Your task to perform on an android device: Search for logitech g pro on walmart, select the first entry, and add it to the cart. Image 0: 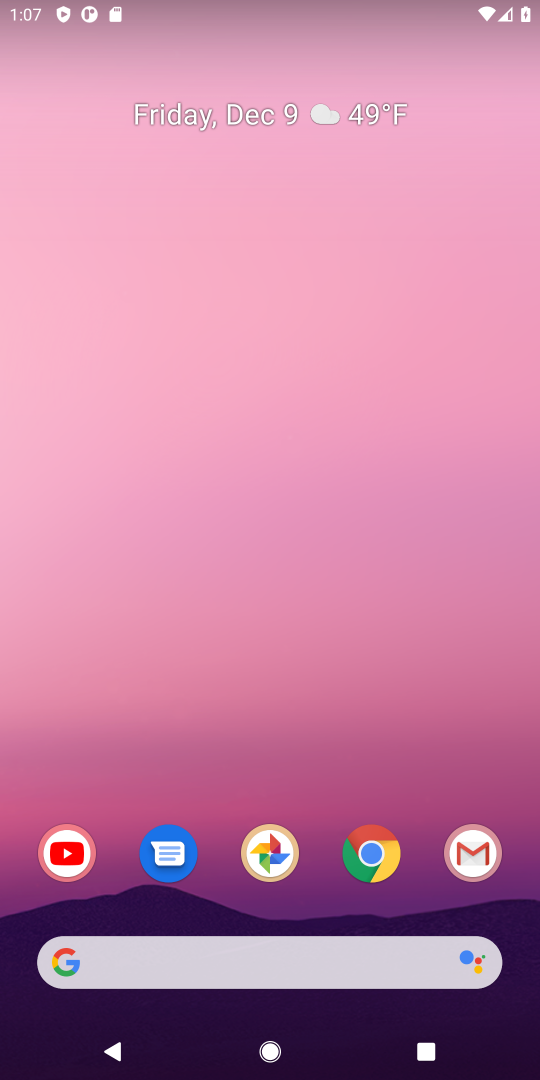
Step 0: drag from (175, 924) to (278, 257)
Your task to perform on an android device: Search for logitech g pro on walmart, select the first entry, and add it to the cart. Image 1: 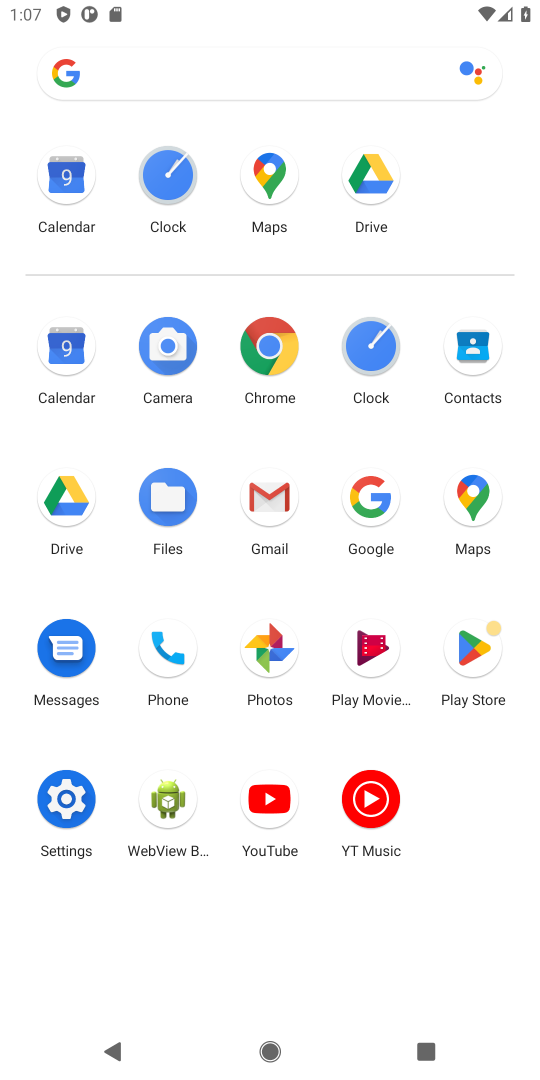
Step 1: click (374, 504)
Your task to perform on an android device: Search for logitech g pro on walmart, select the first entry, and add it to the cart. Image 2: 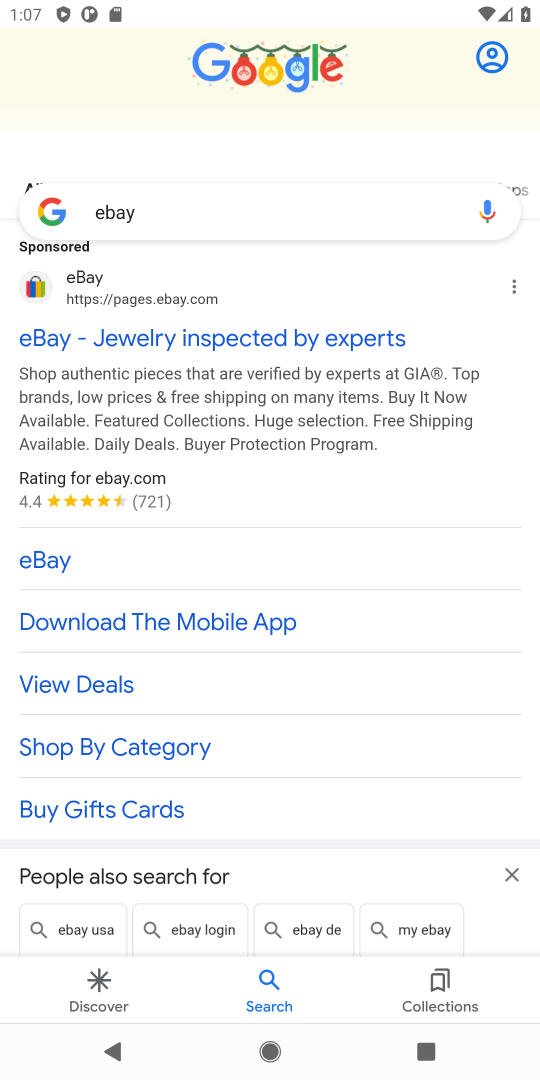
Step 2: click (162, 204)
Your task to perform on an android device: Search for logitech g pro on walmart, select the first entry, and add it to the cart. Image 3: 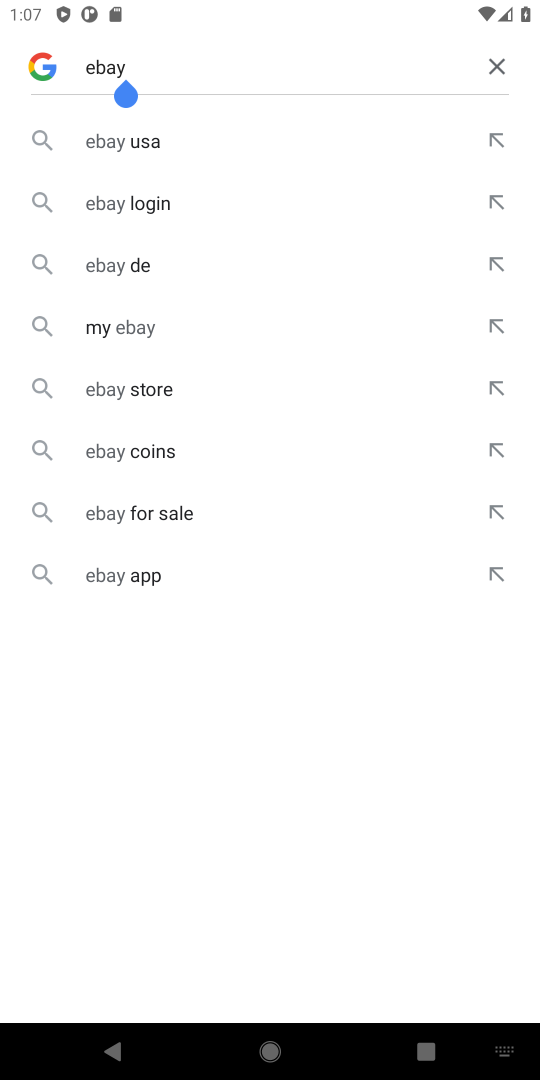
Step 3: click (493, 64)
Your task to perform on an android device: Search for logitech g pro on walmart, select the first entry, and add it to the cart. Image 4: 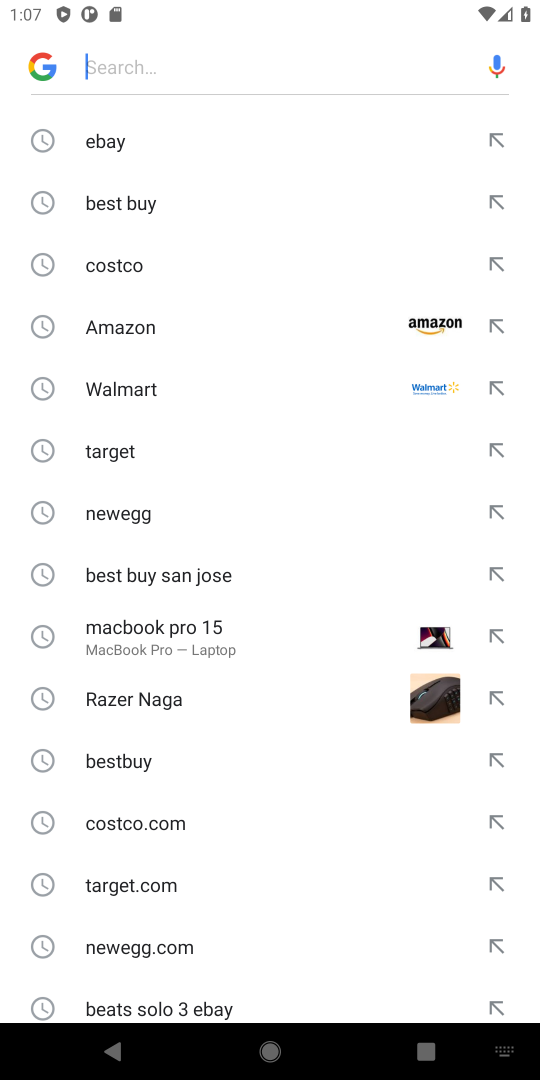
Step 4: click (125, 394)
Your task to perform on an android device: Search for logitech g pro on walmart, select the first entry, and add it to the cart. Image 5: 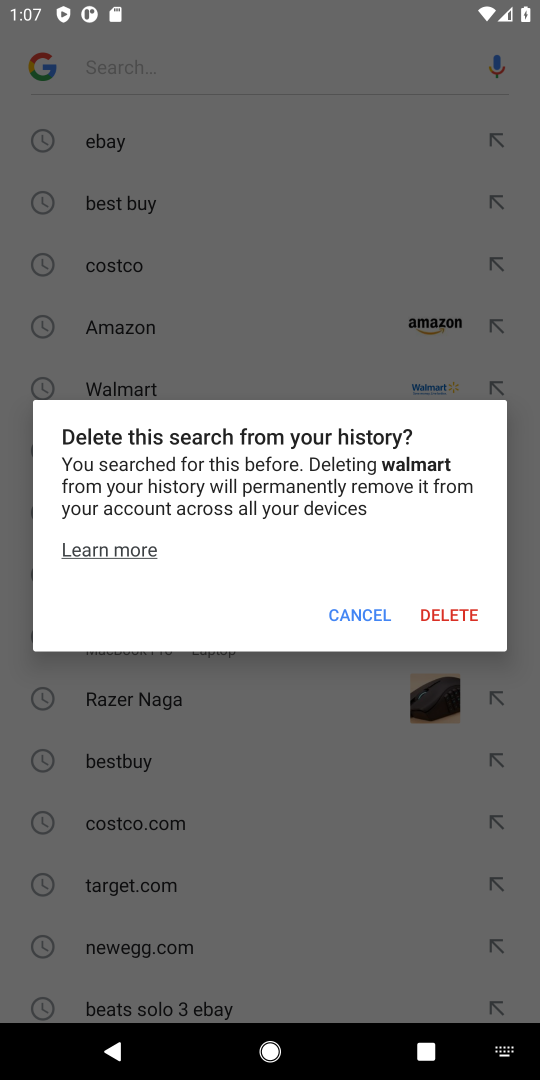
Step 5: click (344, 614)
Your task to perform on an android device: Search for logitech g pro on walmart, select the first entry, and add it to the cart. Image 6: 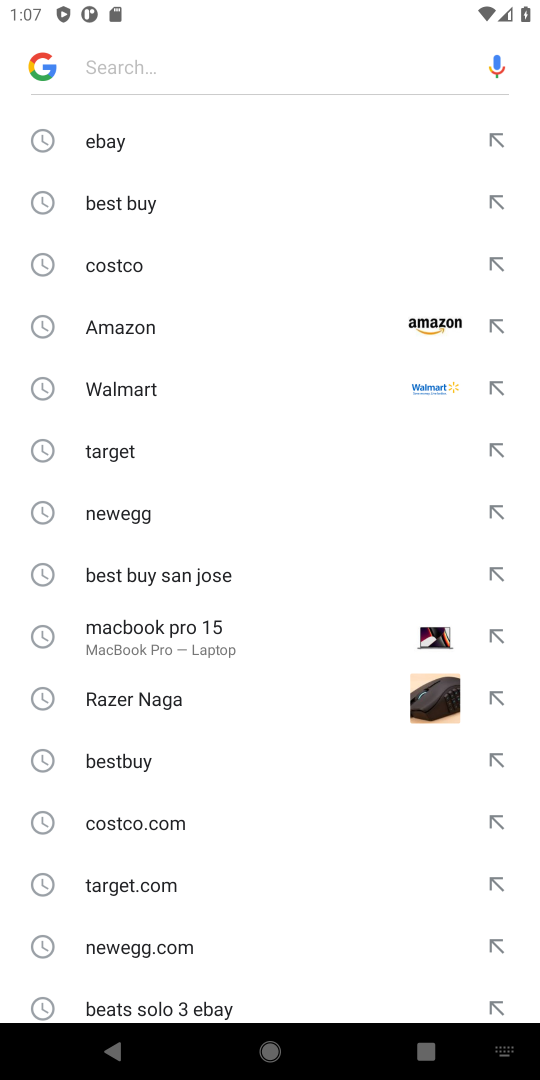
Step 6: click (440, 386)
Your task to perform on an android device: Search for logitech g pro on walmart, select the first entry, and add it to the cart. Image 7: 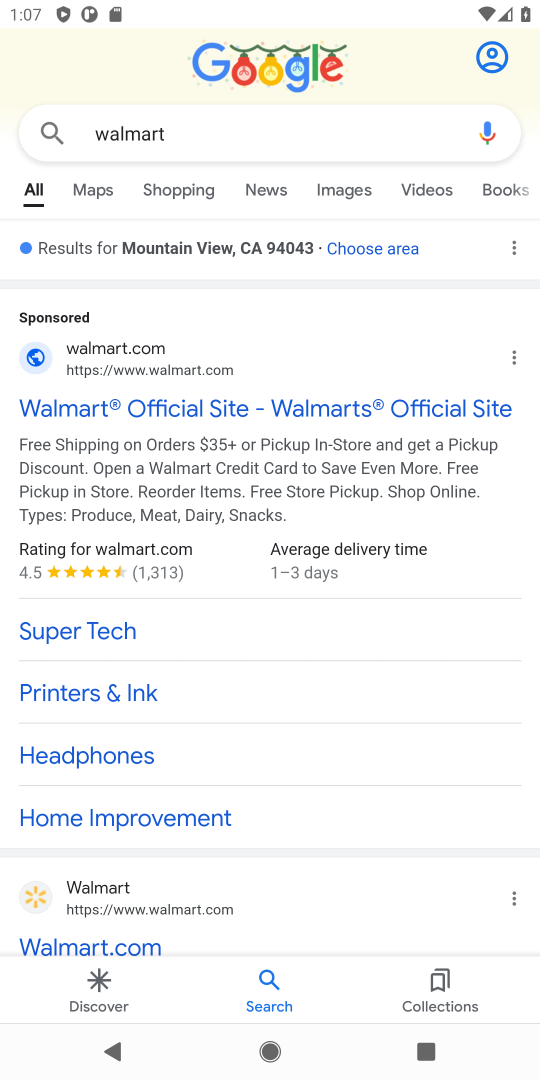
Step 7: click (156, 411)
Your task to perform on an android device: Search for logitech g pro on walmart, select the first entry, and add it to the cart. Image 8: 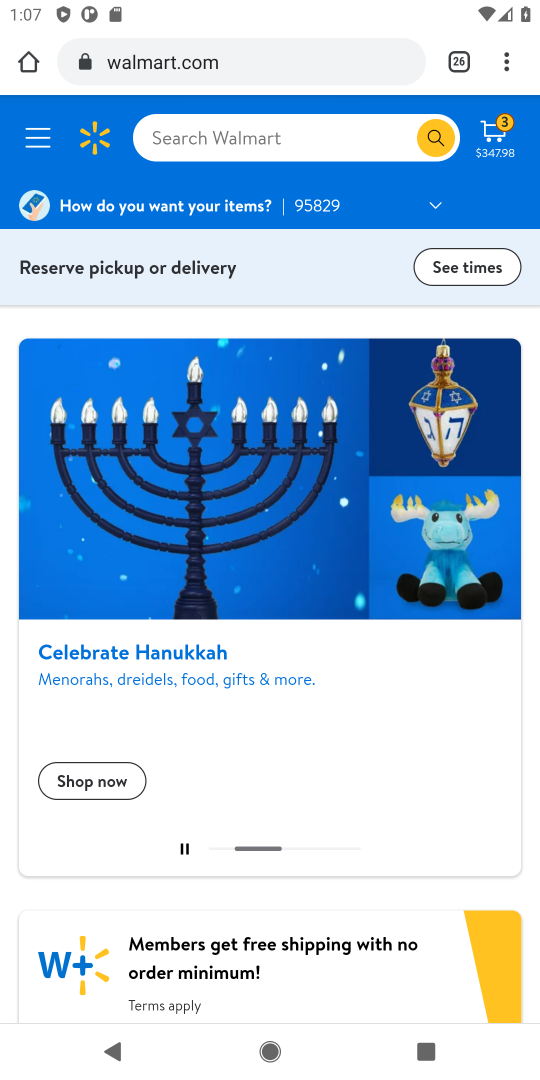
Step 8: click (210, 131)
Your task to perform on an android device: Search for logitech g pro on walmart, select the first entry, and add it to the cart. Image 9: 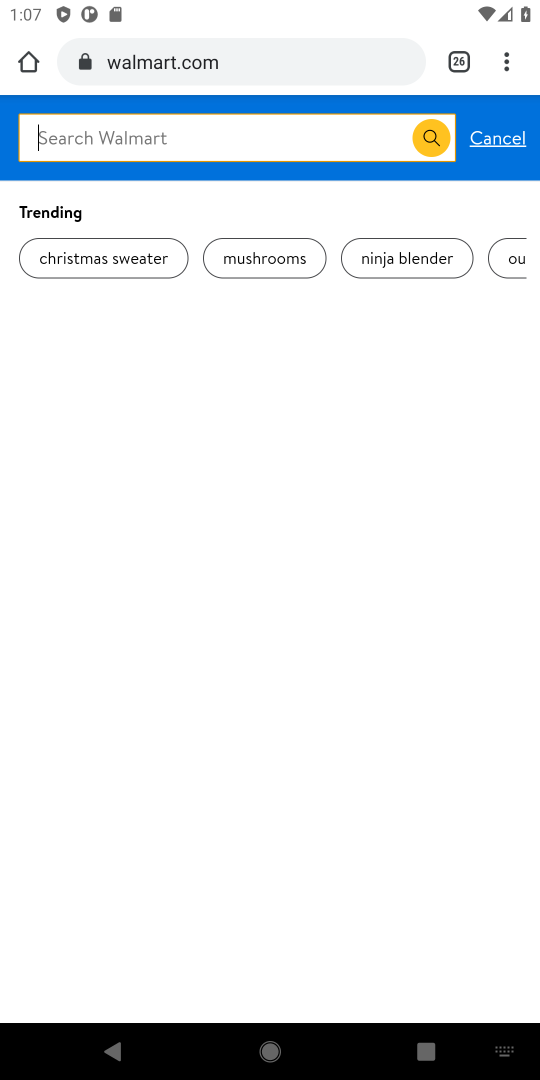
Step 9: type "logitech g"
Your task to perform on an android device: Search for logitech g pro on walmart, select the first entry, and add it to the cart. Image 10: 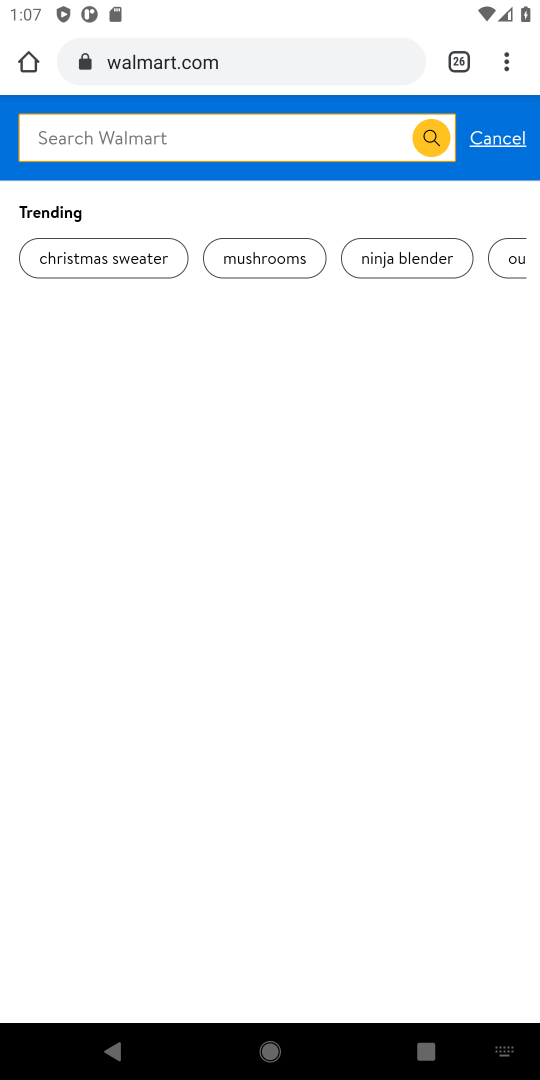
Step 10: click (430, 140)
Your task to perform on an android device: Search for logitech g pro on walmart, select the first entry, and add it to the cart. Image 11: 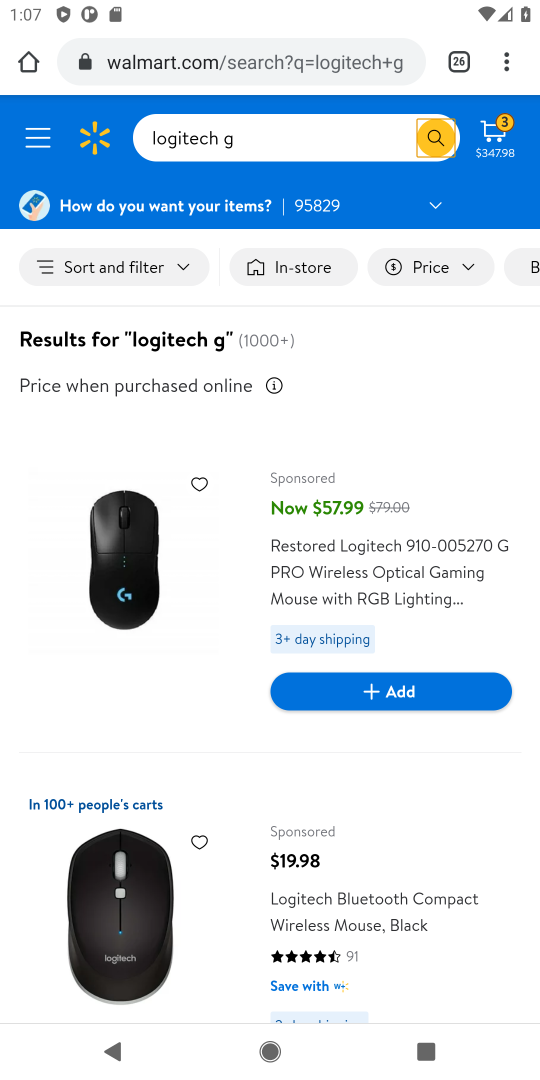
Step 11: click (393, 692)
Your task to perform on an android device: Search for logitech g pro on walmart, select the first entry, and add it to the cart. Image 12: 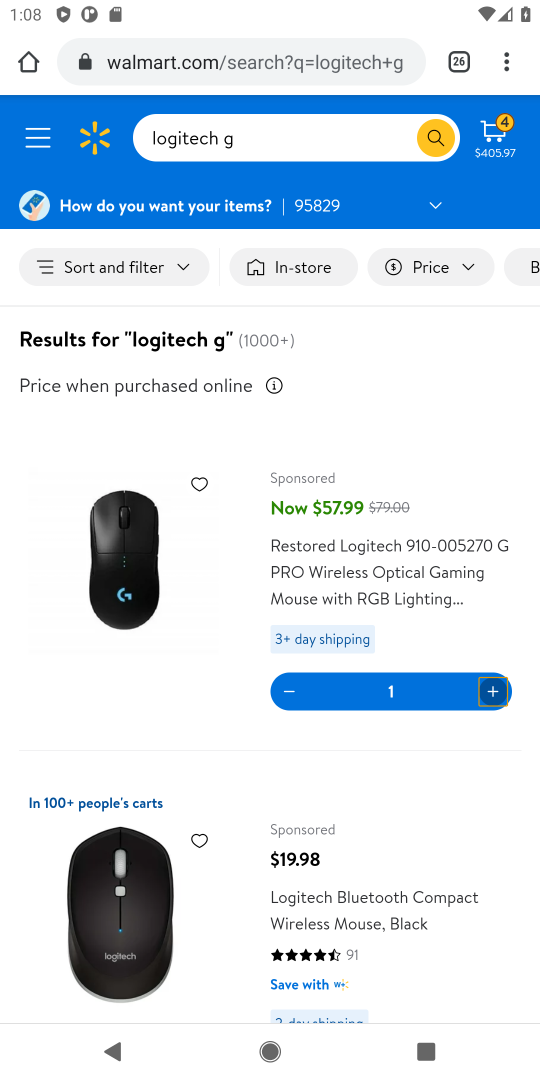
Step 12: task complete